Your task to perform on an android device: Open battery settings Image 0: 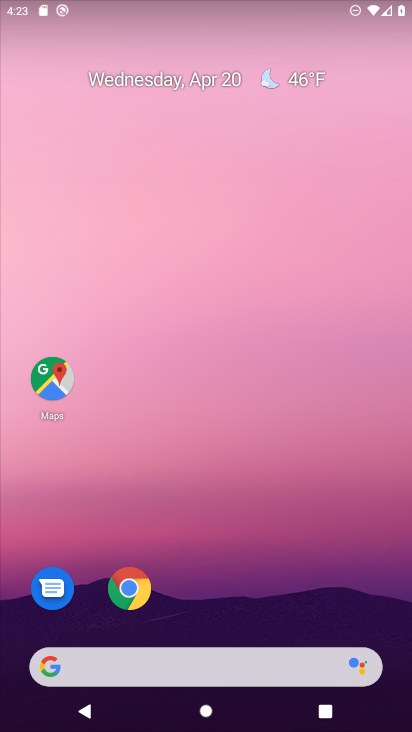
Step 0: drag from (205, 523) to (164, 231)
Your task to perform on an android device: Open battery settings Image 1: 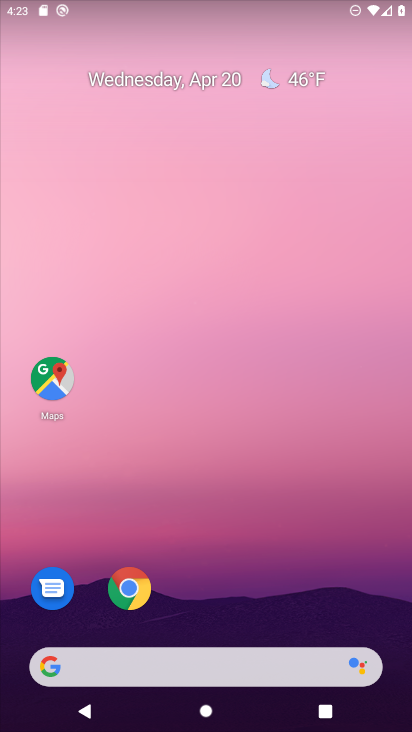
Step 1: drag from (191, 369) to (188, 135)
Your task to perform on an android device: Open battery settings Image 2: 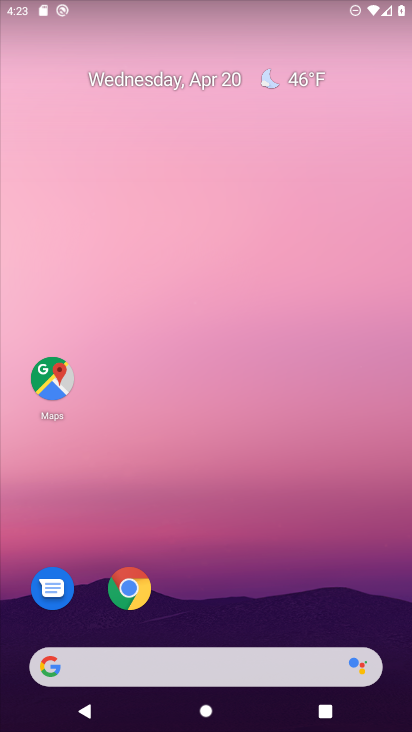
Step 2: drag from (208, 728) to (211, 133)
Your task to perform on an android device: Open battery settings Image 3: 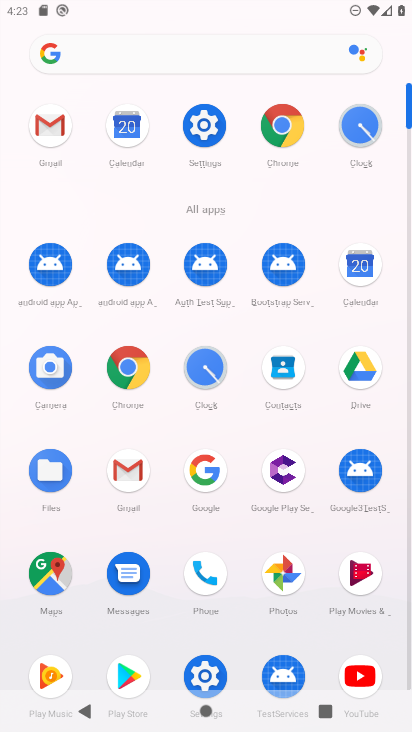
Step 3: click (194, 123)
Your task to perform on an android device: Open battery settings Image 4: 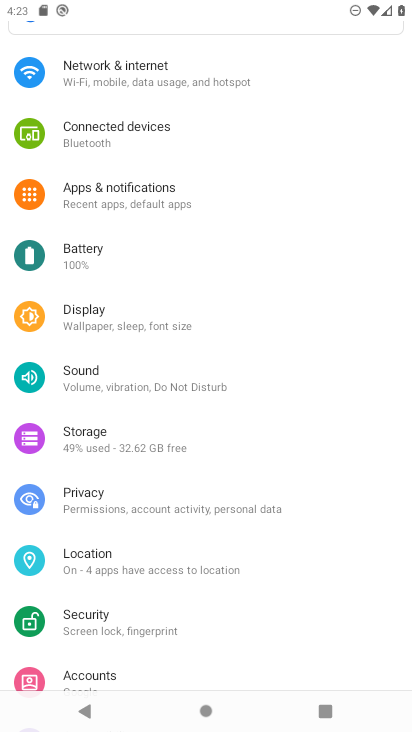
Step 4: click (77, 253)
Your task to perform on an android device: Open battery settings Image 5: 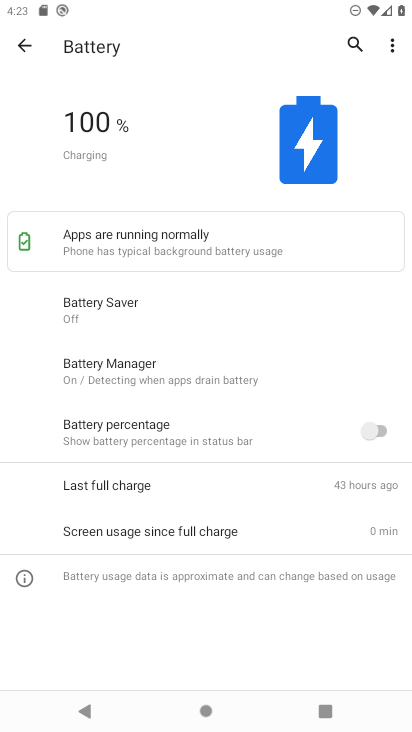
Step 5: task complete